Your task to perform on an android device: Play the last video I watched on Youtube Image 0: 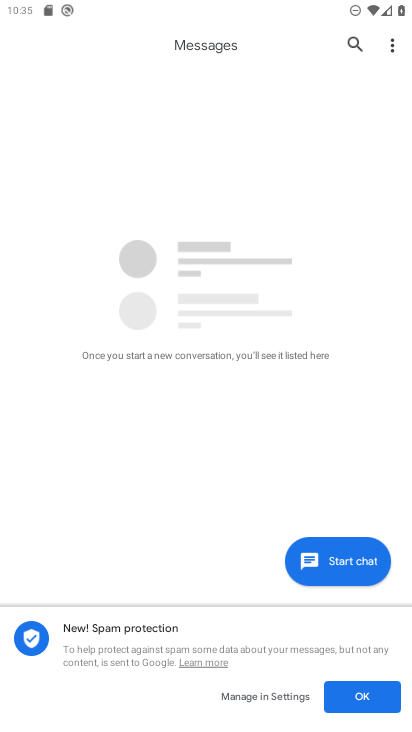
Step 0: press home button
Your task to perform on an android device: Play the last video I watched on Youtube Image 1: 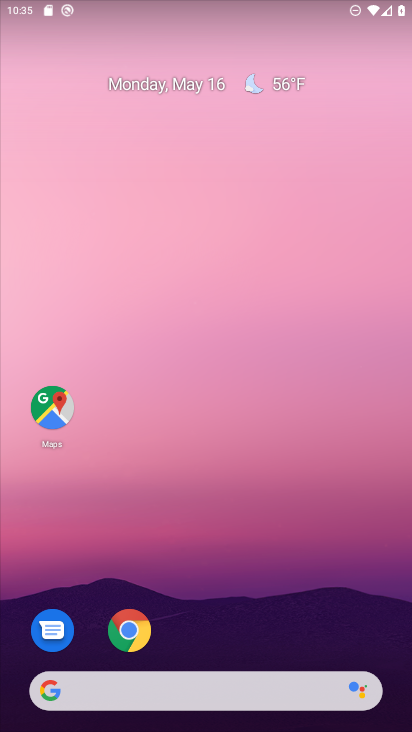
Step 1: drag from (217, 632) to (284, 174)
Your task to perform on an android device: Play the last video I watched on Youtube Image 2: 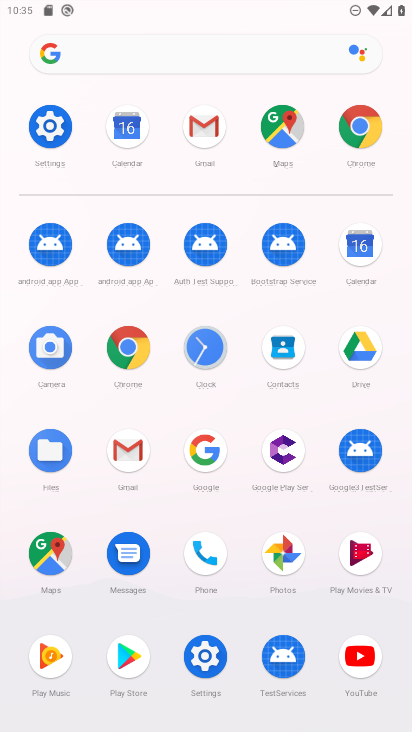
Step 2: click (376, 664)
Your task to perform on an android device: Play the last video I watched on Youtube Image 3: 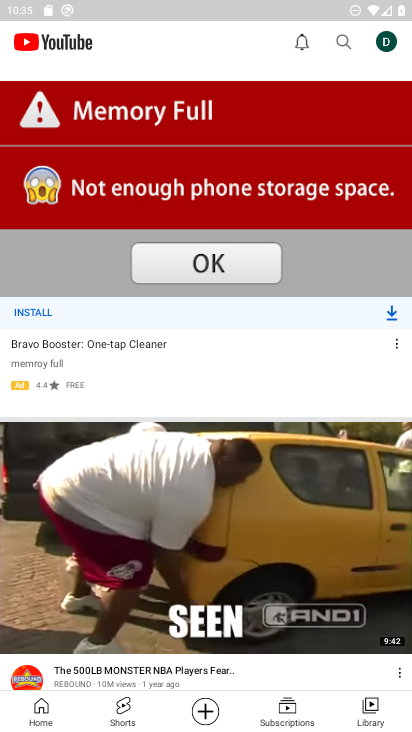
Step 3: drag from (214, 564) to (214, 469)
Your task to perform on an android device: Play the last video I watched on Youtube Image 4: 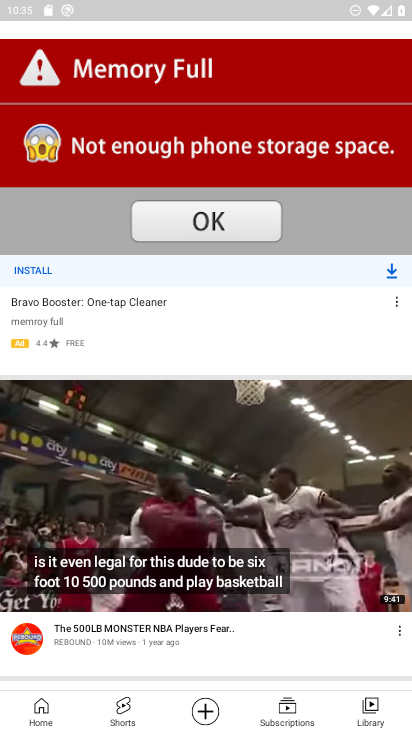
Step 4: click (374, 709)
Your task to perform on an android device: Play the last video I watched on Youtube Image 5: 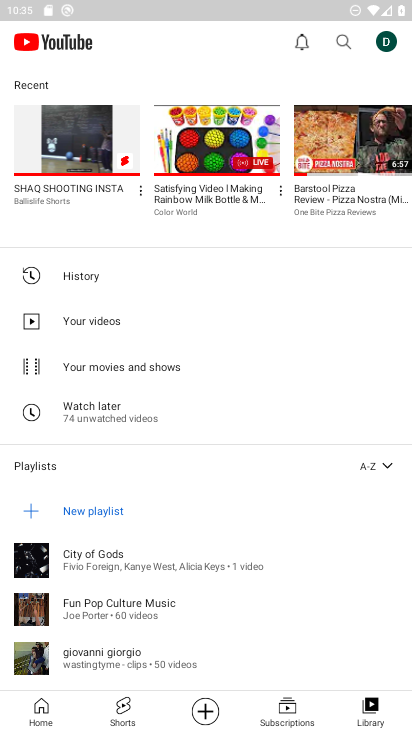
Step 5: click (86, 146)
Your task to perform on an android device: Play the last video I watched on Youtube Image 6: 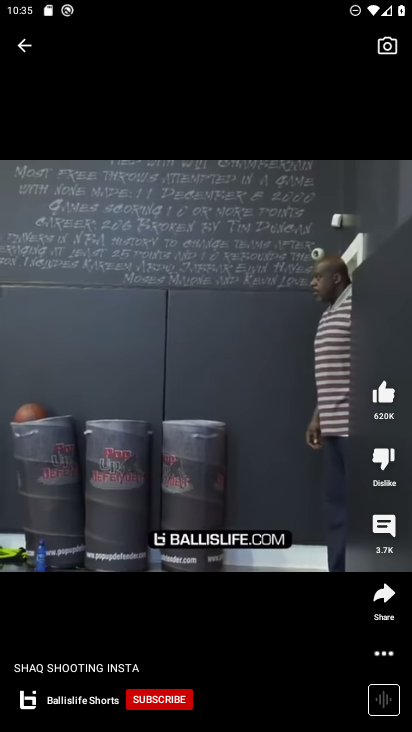
Step 6: task complete